Your task to perform on an android device: Open calendar and show me the second week of next month Image 0: 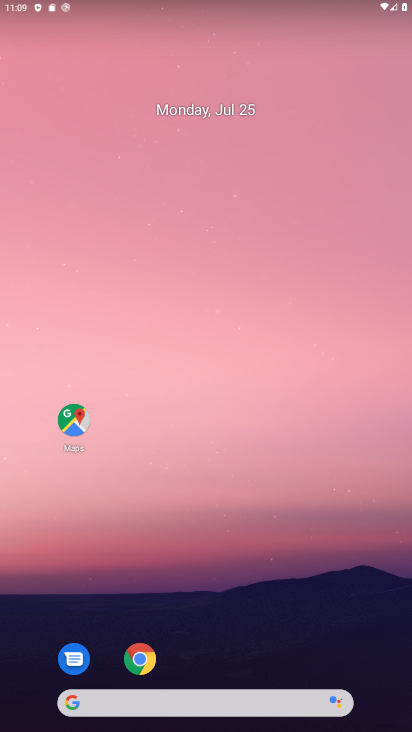
Step 0: drag from (184, 424) to (294, 65)
Your task to perform on an android device: Open calendar and show me the second week of next month Image 1: 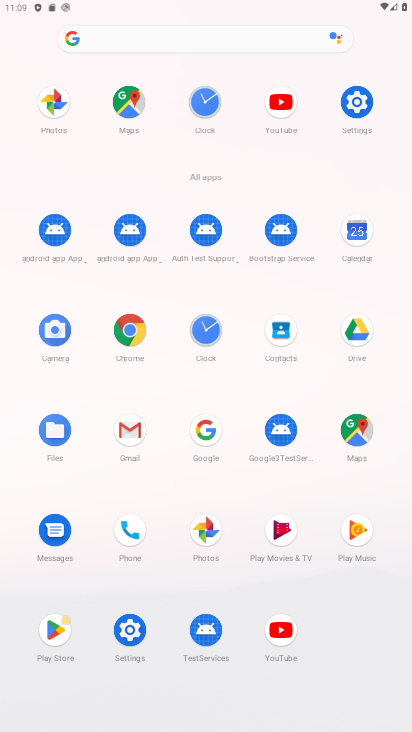
Step 1: click (359, 231)
Your task to perform on an android device: Open calendar and show me the second week of next month Image 2: 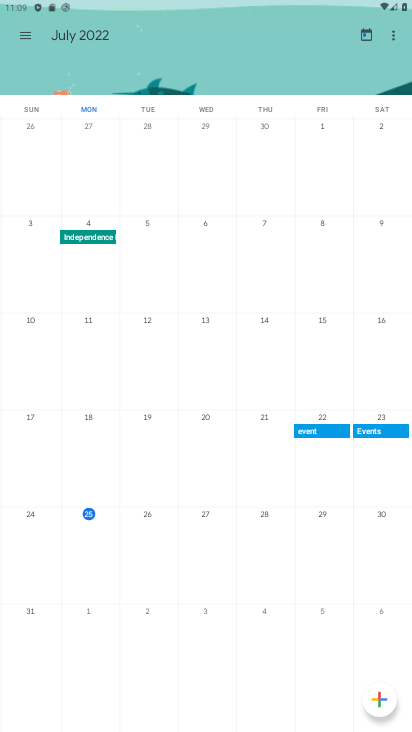
Step 2: drag from (375, 322) to (11, 470)
Your task to perform on an android device: Open calendar and show me the second week of next month Image 3: 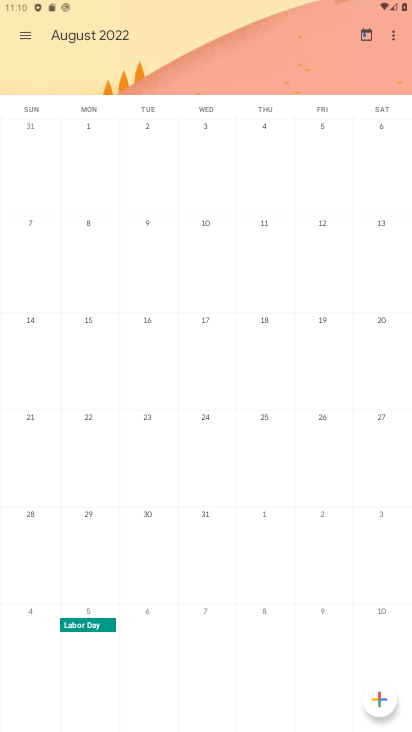
Step 3: click (84, 221)
Your task to perform on an android device: Open calendar and show me the second week of next month Image 4: 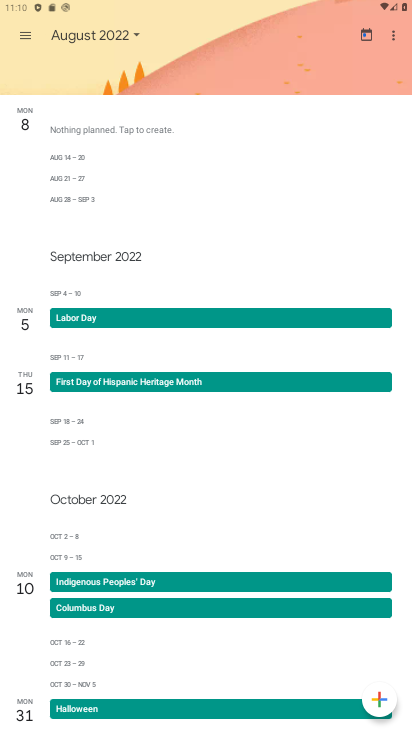
Step 4: task complete